Your task to perform on an android device: change your default location settings in chrome Image 0: 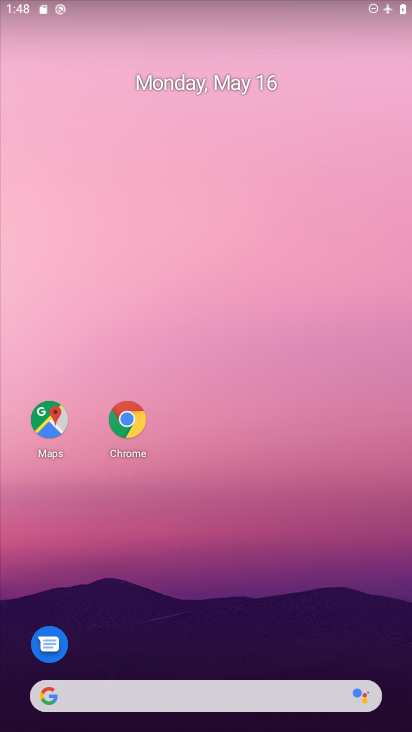
Step 0: drag from (168, 624) to (291, 8)
Your task to perform on an android device: change your default location settings in chrome Image 1: 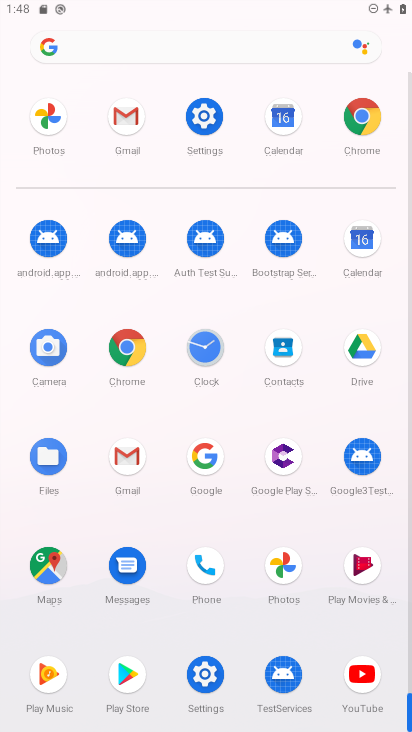
Step 1: click (366, 116)
Your task to perform on an android device: change your default location settings in chrome Image 2: 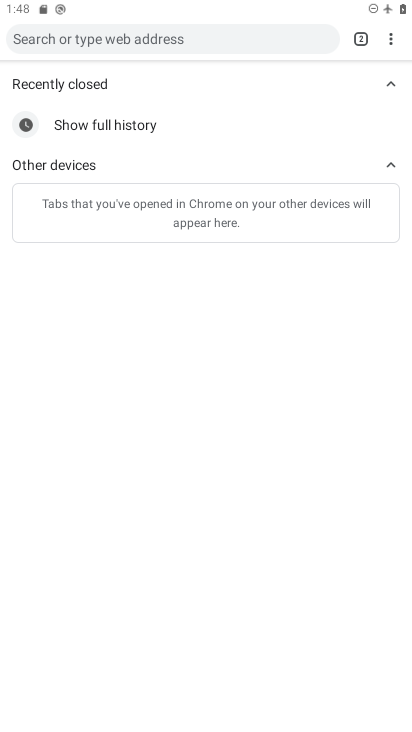
Step 2: click (388, 29)
Your task to perform on an android device: change your default location settings in chrome Image 3: 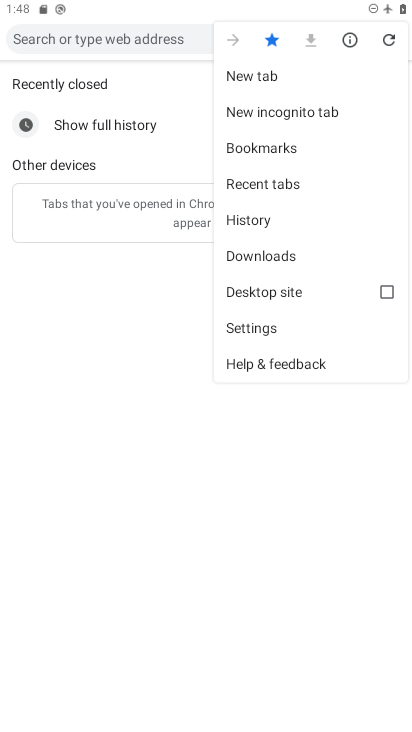
Step 3: click (266, 323)
Your task to perform on an android device: change your default location settings in chrome Image 4: 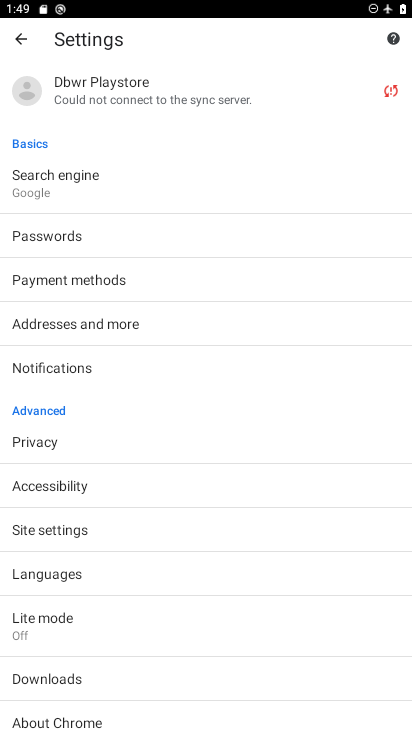
Step 4: drag from (198, 546) to (285, 167)
Your task to perform on an android device: change your default location settings in chrome Image 5: 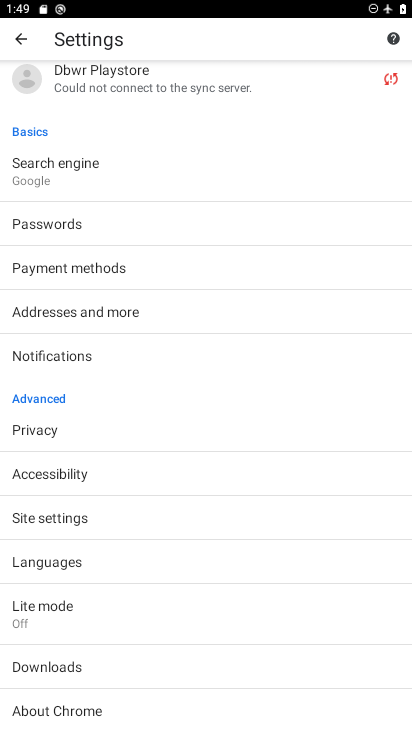
Step 5: click (60, 517)
Your task to perform on an android device: change your default location settings in chrome Image 6: 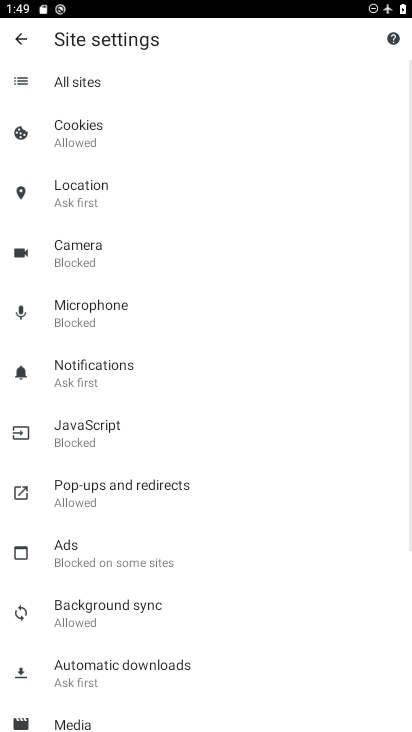
Step 6: click (115, 194)
Your task to perform on an android device: change your default location settings in chrome Image 7: 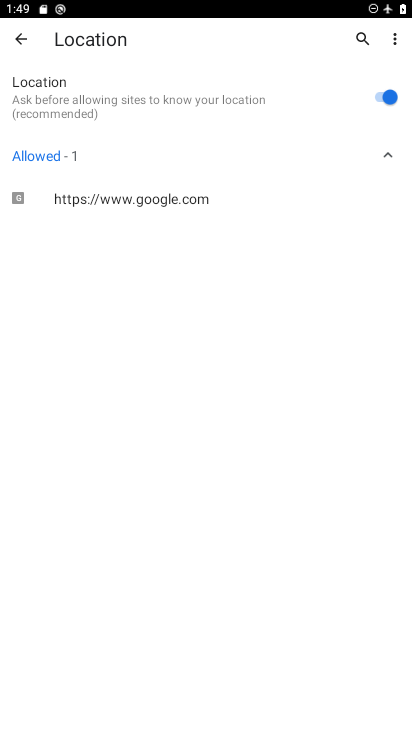
Step 7: drag from (173, 362) to (216, 158)
Your task to perform on an android device: change your default location settings in chrome Image 8: 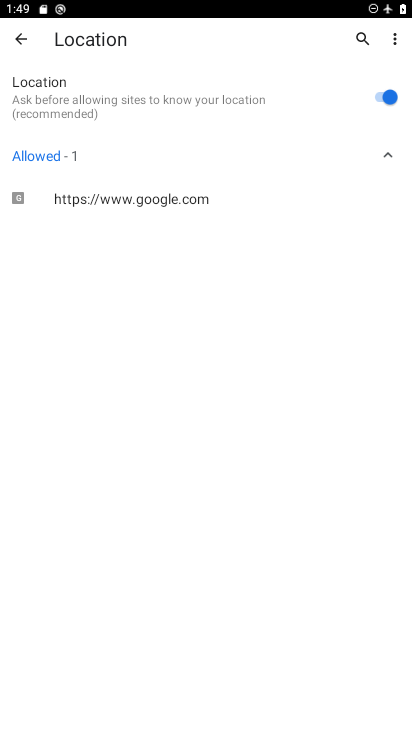
Step 8: drag from (215, 405) to (250, 127)
Your task to perform on an android device: change your default location settings in chrome Image 9: 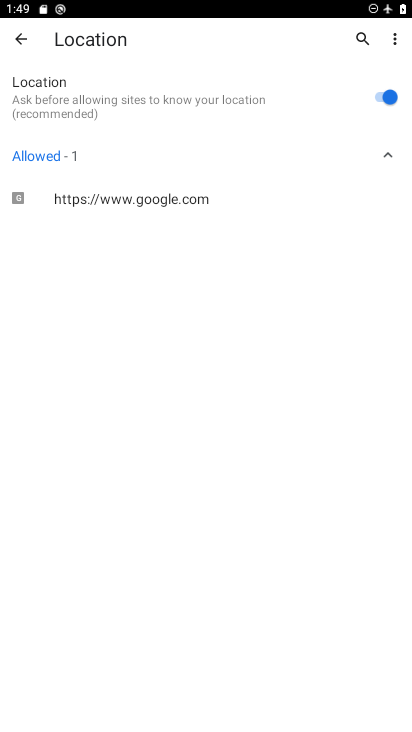
Step 9: drag from (198, 413) to (226, 158)
Your task to perform on an android device: change your default location settings in chrome Image 10: 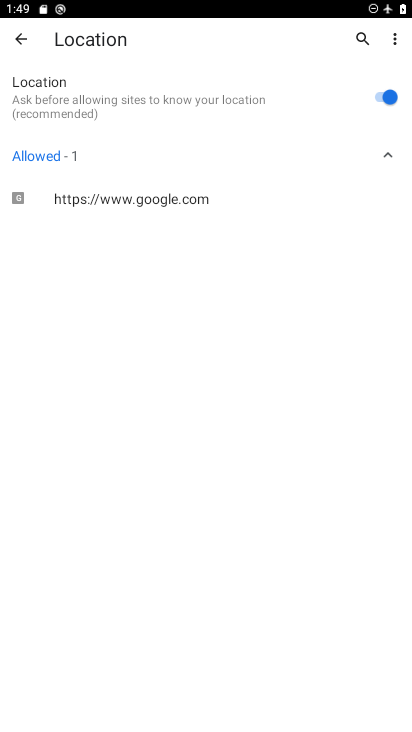
Step 10: click (378, 95)
Your task to perform on an android device: change your default location settings in chrome Image 11: 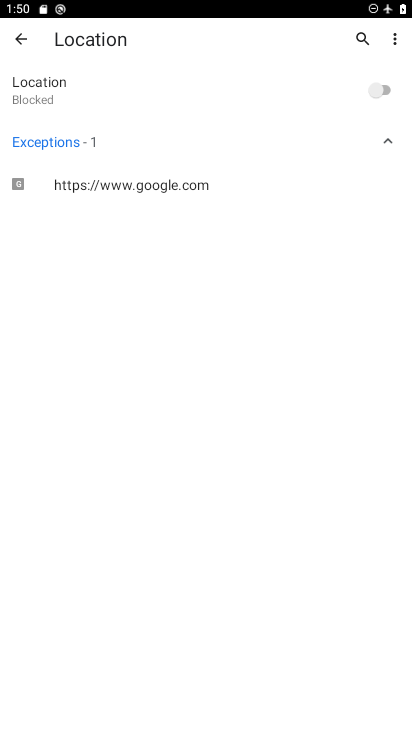
Step 11: click (380, 95)
Your task to perform on an android device: change your default location settings in chrome Image 12: 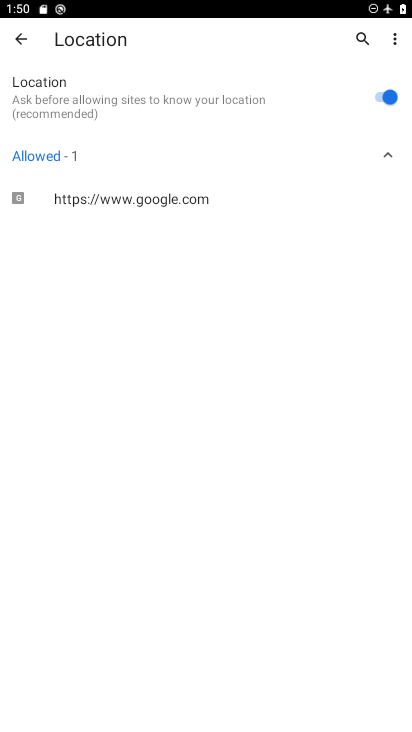
Step 12: click (380, 95)
Your task to perform on an android device: change your default location settings in chrome Image 13: 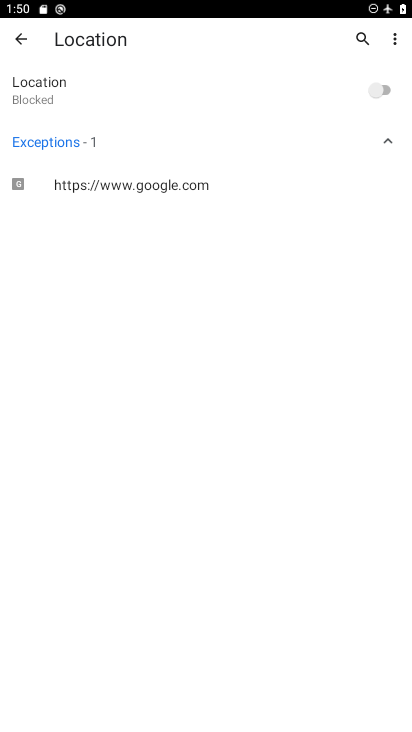
Step 13: task complete